Your task to perform on an android device: Open Reddit.com Image 0: 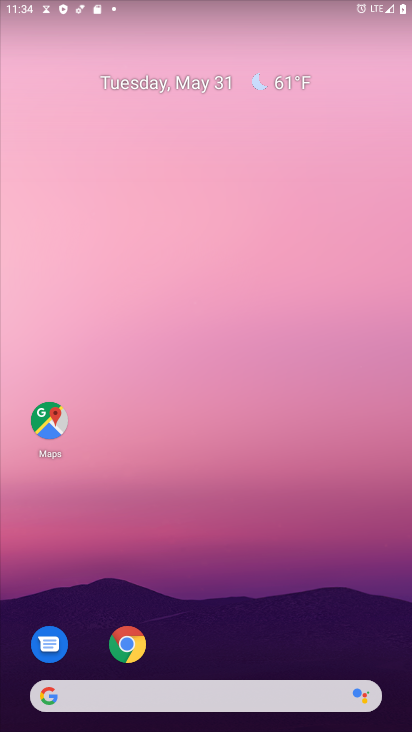
Step 0: click (133, 636)
Your task to perform on an android device: Open Reddit.com Image 1: 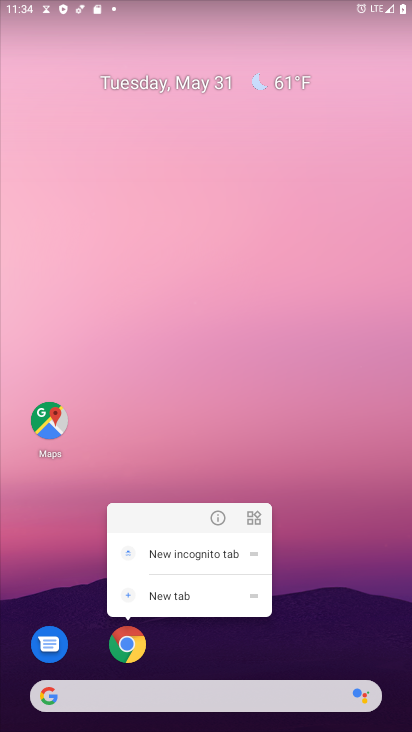
Step 1: click (130, 648)
Your task to perform on an android device: Open Reddit.com Image 2: 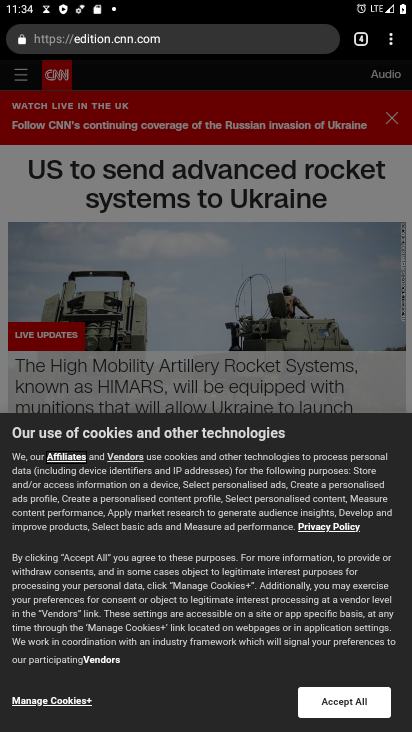
Step 2: click (354, 43)
Your task to perform on an android device: Open Reddit.com Image 3: 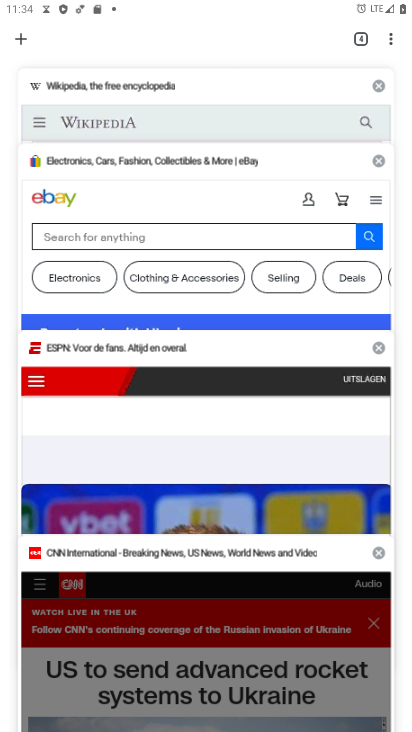
Step 3: click (18, 35)
Your task to perform on an android device: Open Reddit.com Image 4: 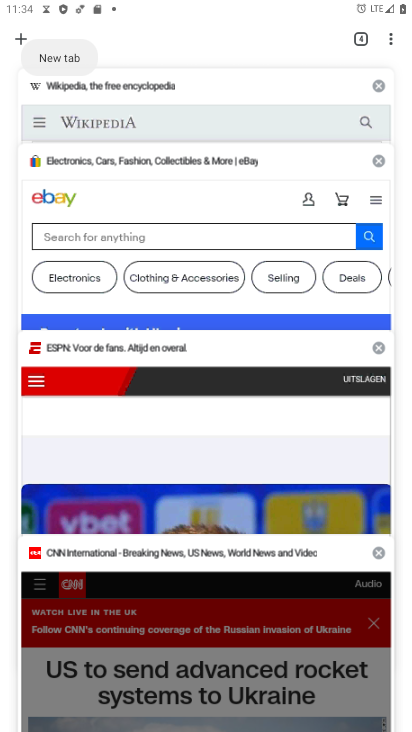
Step 4: click (18, 35)
Your task to perform on an android device: Open Reddit.com Image 5: 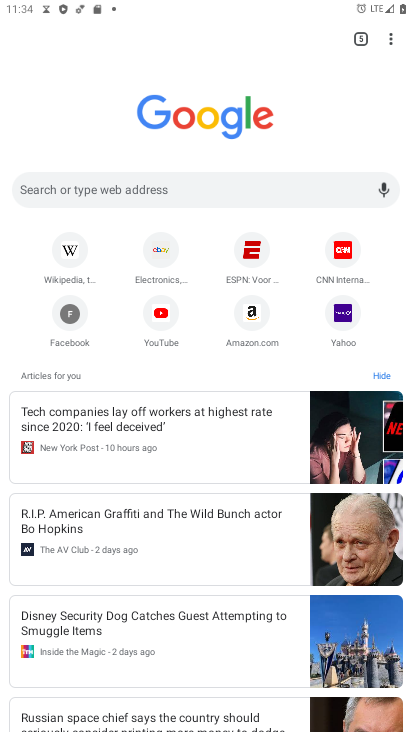
Step 5: click (112, 185)
Your task to perform on an android device: Open Reddit.com Image 6: 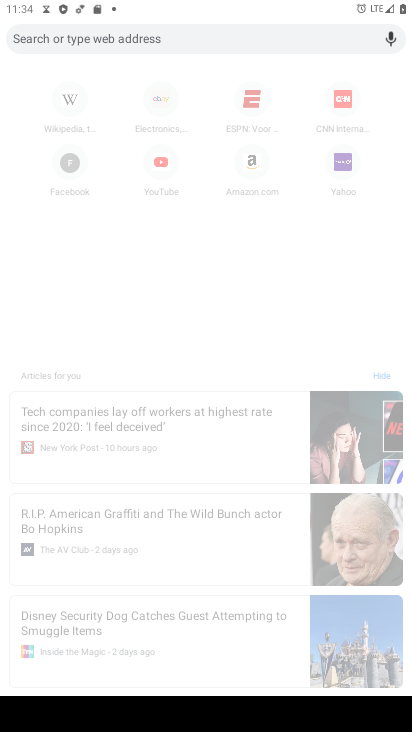
Step 6: type "reddit.vom"
Your task to perform on an android device: Open Reddit.com Image 7: 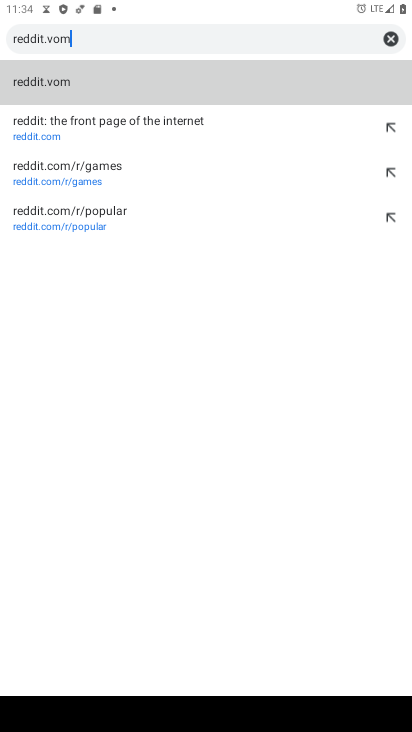
Step 7: click (76, 135)
Your task to perform on an android device: Open Reddit.com Image 8: 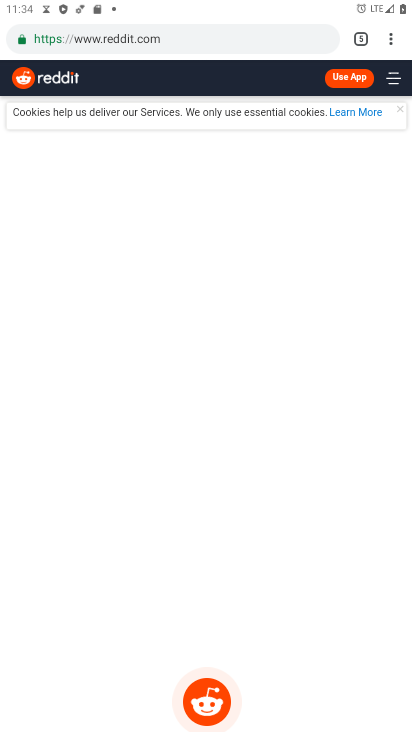
Step 8: task complete